Your task to perform on an android device: toggle sleep mode Image 0: 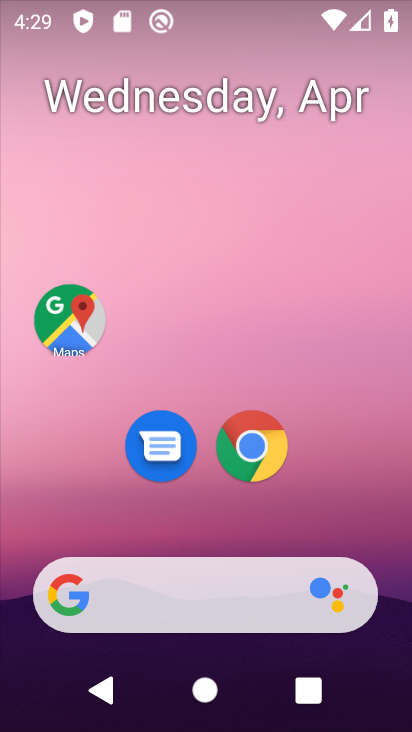
Step 0: drag from (244, 266) to (321, 11)
Your task to perform on an android device: toggle sleep mode Image 1: 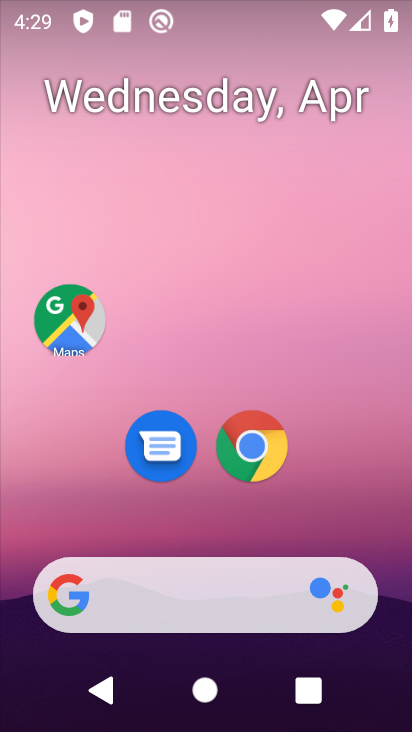
Step 1: drag from (202, 296) to (269, 46)
Your task to perform on an android device: toggle sleep mode Image 2: 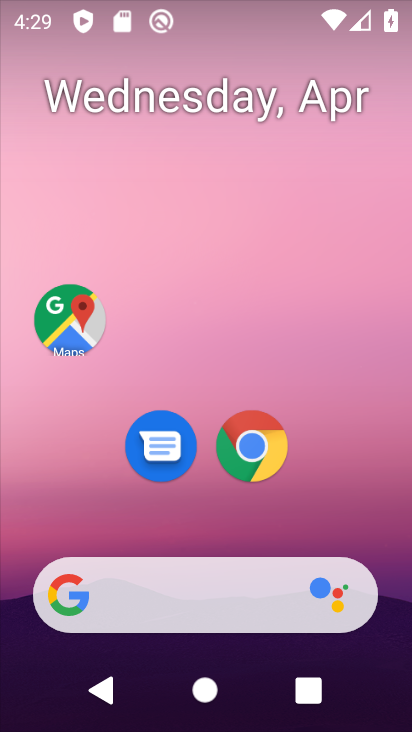
Step 2: drag from (187, 526) to (281, 71)
Your task to perform on an android device: toggle sleep mode Image 3: 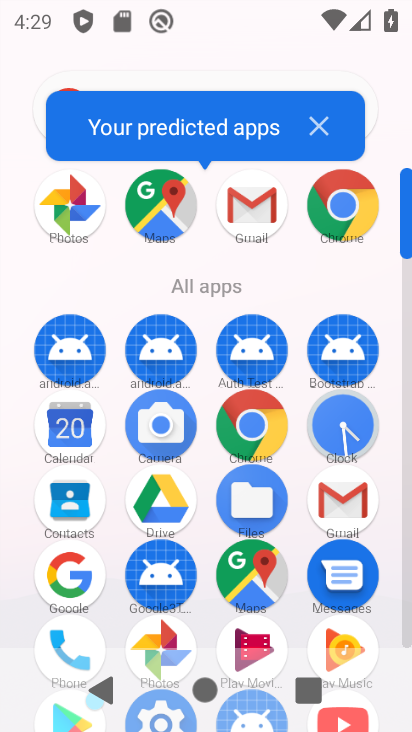
Step 3: drag from (234, 407) to (319, 175)
Your task to perform on an android device: toggle sleep mode Image 4: 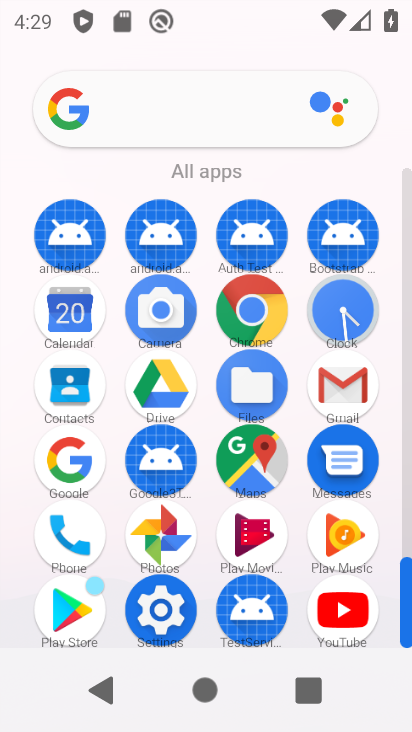
Step 4: click (154, 623)
Your task to perform on an android device: toggle sleep mode Image 5: 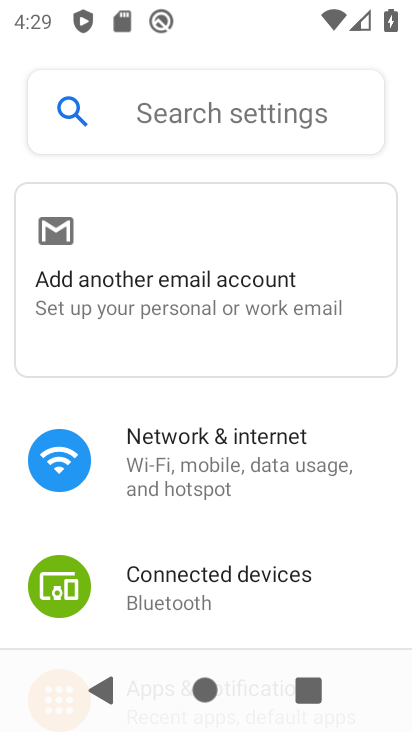
Step 5: drag from (234, 608) to (322, 189)
Your task to perform on an android device: toggle sleep mode Image 6: 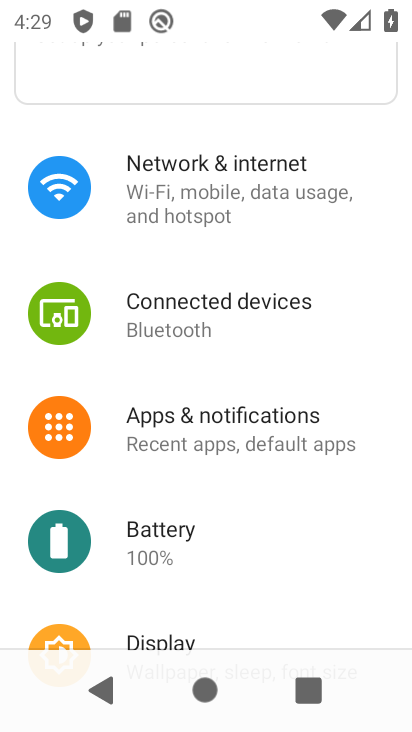
Step 6: drag from (190, 576) to (301, 259)
Your task to perform on an android device: toggle sleep mode Image 7: 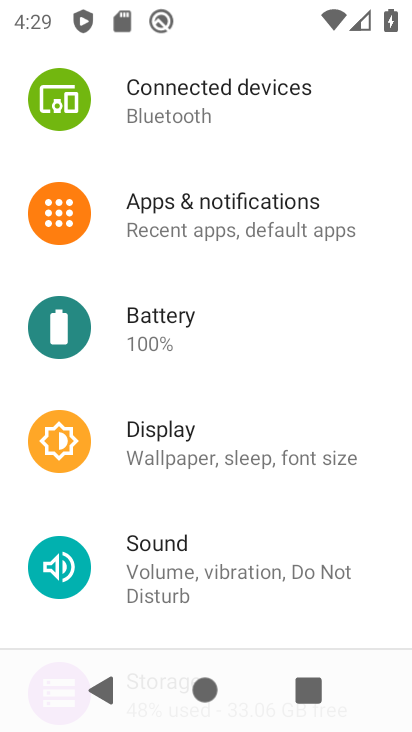
Step 7: click (218, 218)
Your task to perform on an android device: toggle sleep mode Image 8: 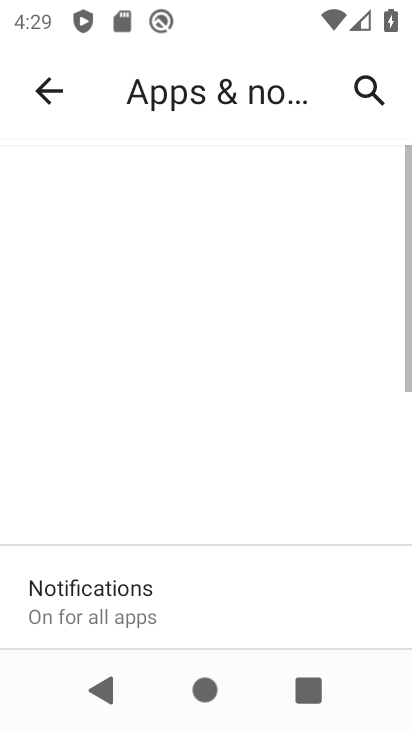
Step 8: press back button
Your task to perform on an android device: toggle sleep mode Image 9: 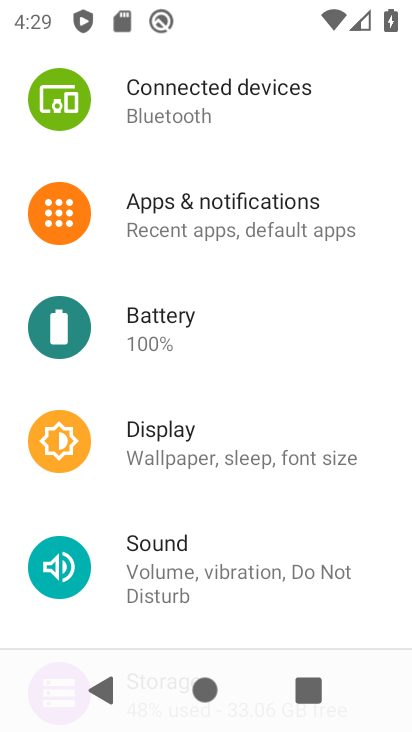
Step 9: click (174, 420)
Your task to perform on an android device: toggle sleep mode Image 10: 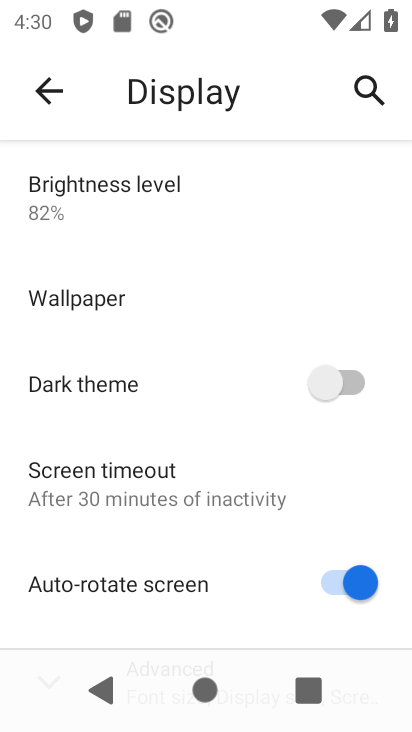
Step 10: task complete